Your task to perform on an android device: open sync settings in chrome Image 0: 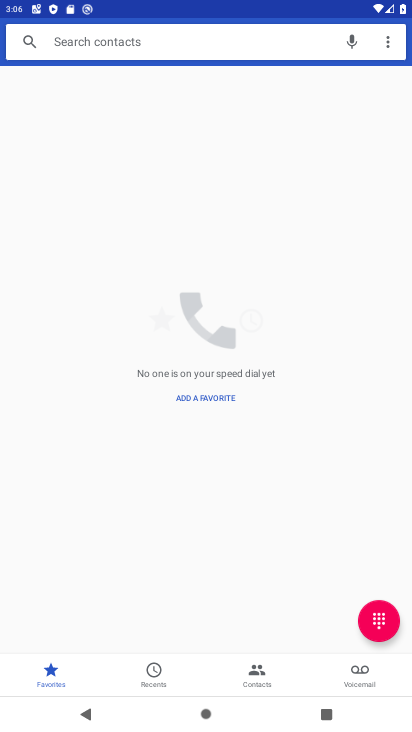
Step 0: press home button
Your task to perform on an android device: open sync settings in chrome Image 1: 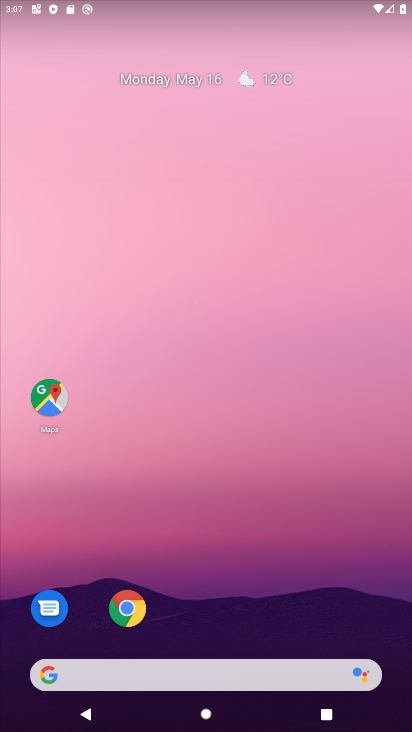
Step 1: click (134, 605)
Your task to perform on an android device: open sync settings in chrome Image 2: 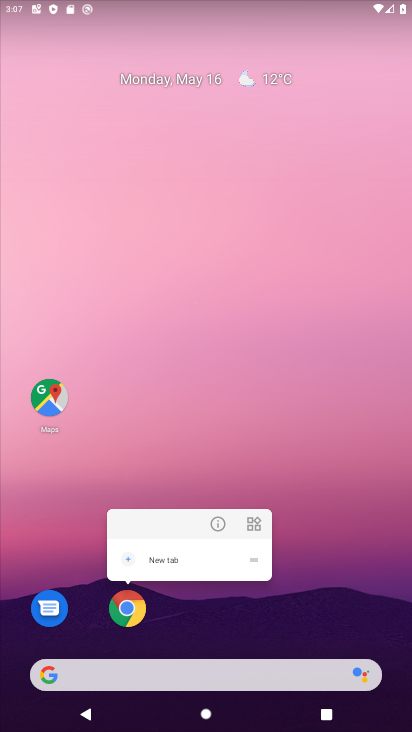
Step 2: click (125, 607)
Your task to perform on an android device: open sync settings in chrome Image 3: 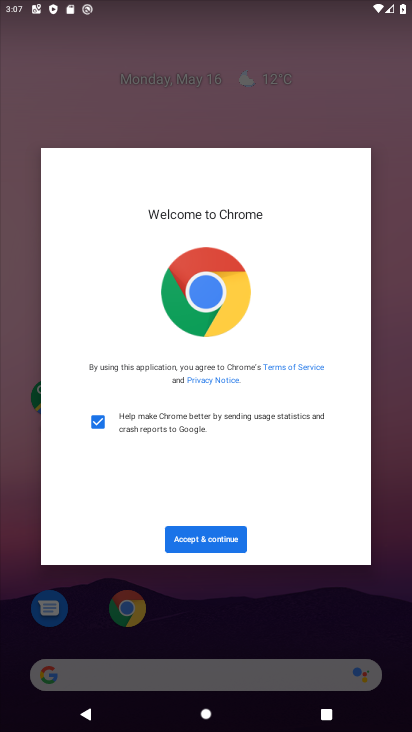
Step 3: click (206, 541)
Your task to perform on an android device: open sync settings in chrome Image 4: 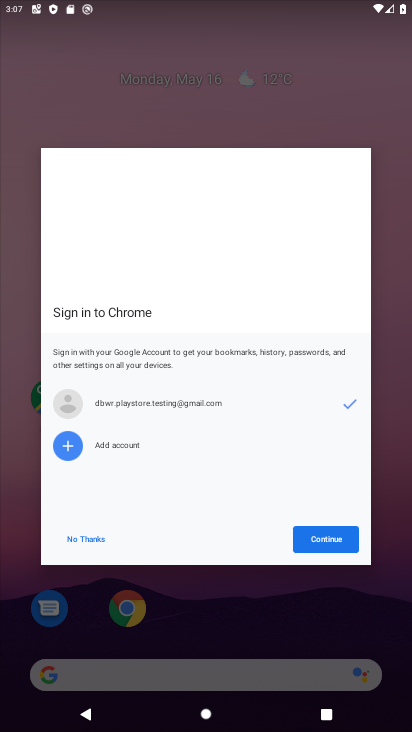
Step 4: click (326, 539)
Your task to perform on an android device: open sync settings in chrome Image 5: 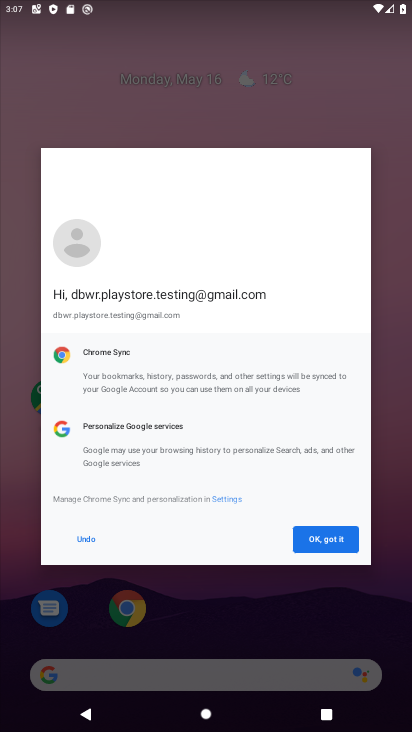
Step 5: click (327, 539)
Your task to perform on an android device: open sync settings in chrome Image 6: 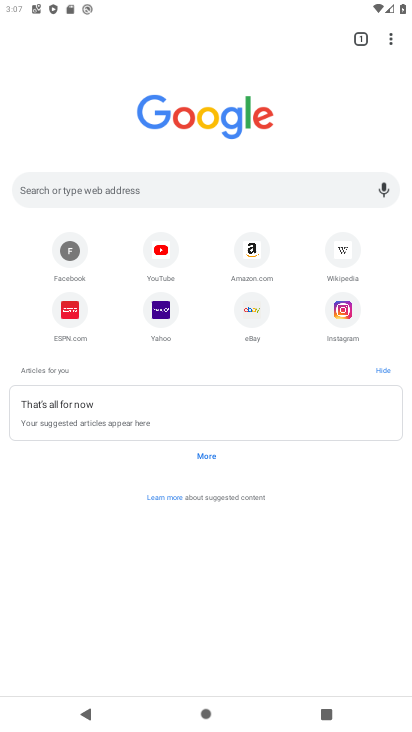
Step 6: click (389, 34)
Your task to perform on an android device: open sync settings in chrome Image 7: 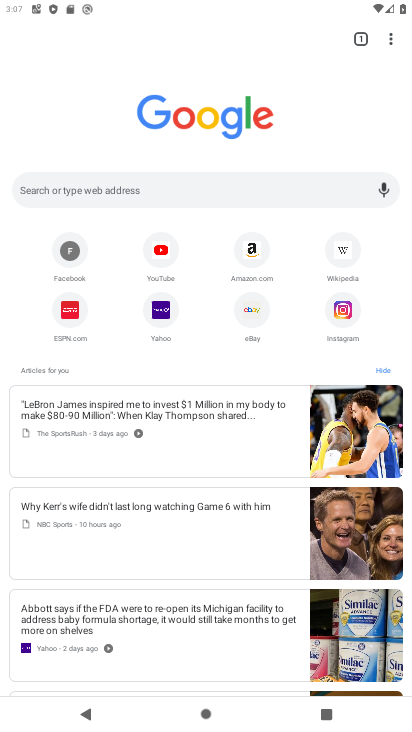
Step 7: click (391, 38)
Your task to perform on an android device: open sync settings in chrome Image 8: 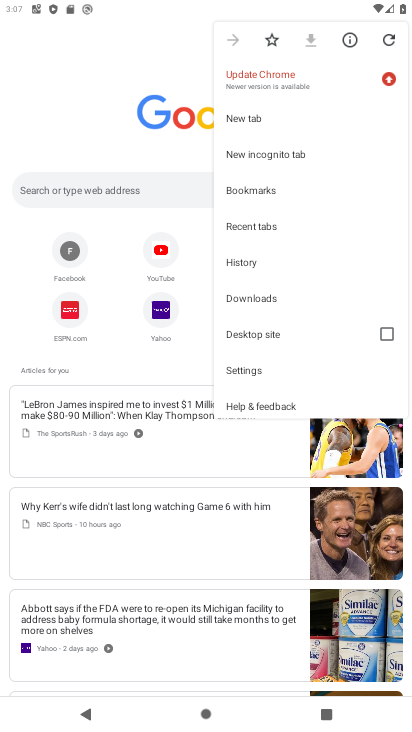
Step 8: click (271, 365)
Your task to perform on an android device: open sync settings in chrome Image 9: 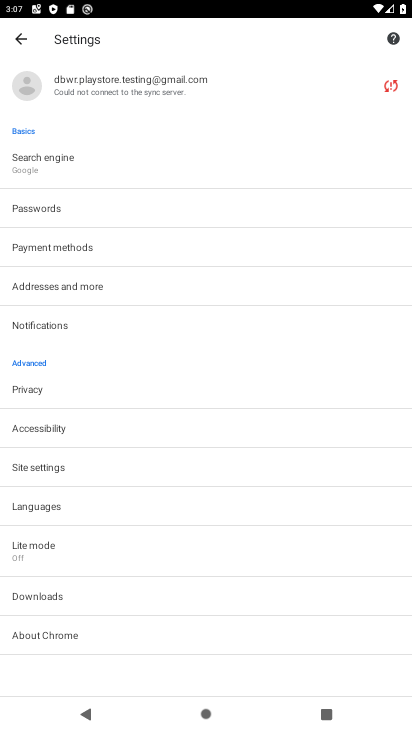
Step 9: task complete